Your task to perform on an android device: See recent photos Image 0: 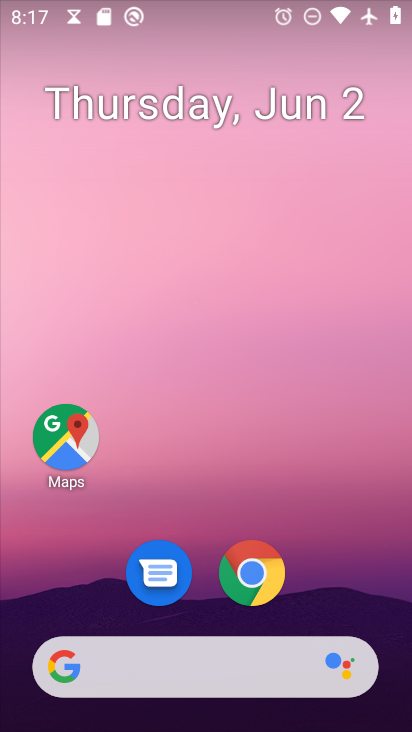
Step 0: drag from (181, 656) to (407, 13)
Your task to perform on an android device: See recent photos Image 1: 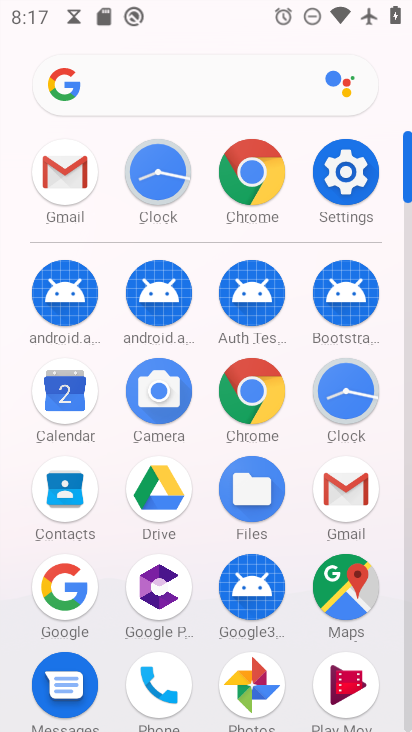
Step 1: click (248, 675)
Your task to perform on an android device: See recent photos Image 2: 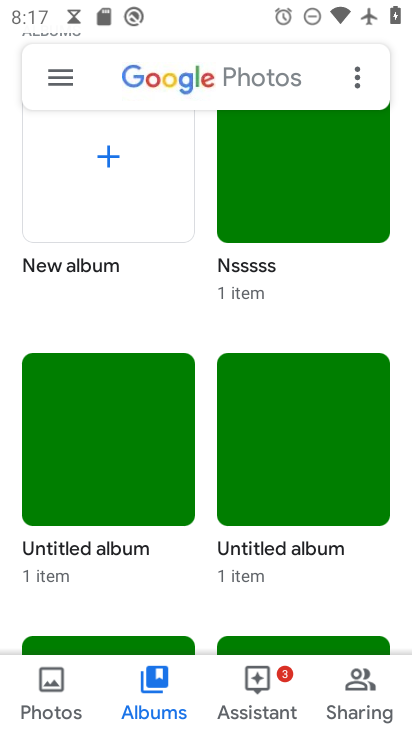
Step 2: drag from (307, 274) to (214, 613)
Your task to perform on an android device: See recent photos Image 3: 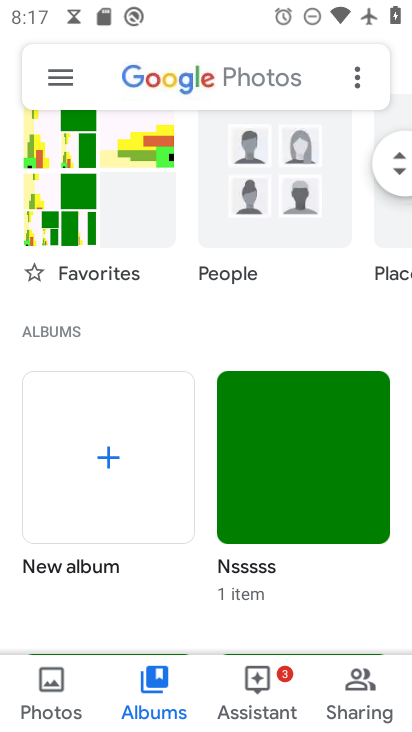
Step 3: click (248, 695)
Your task to perform on an android device: See recent photos Image 4: 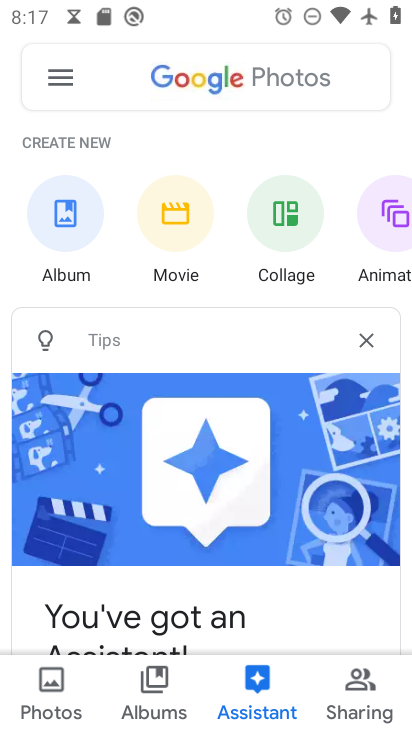
Step 4: task complete